Your task to perform on an android device: Go to display settings Image 0: 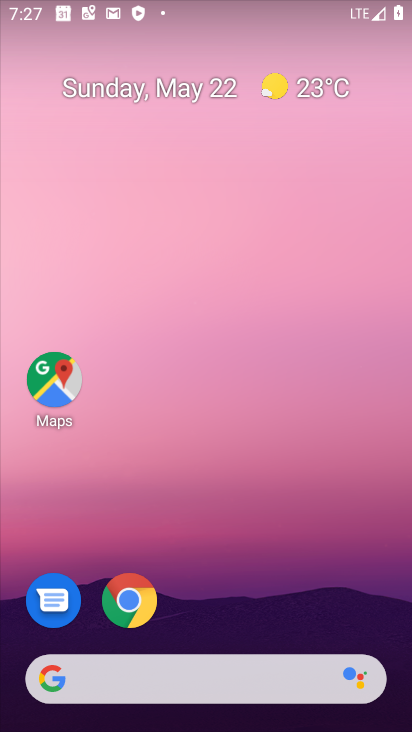
Step 0: drag from (397, 646) to (285, 143)
Your task to perform on an android device: Go to display settings Image 1: 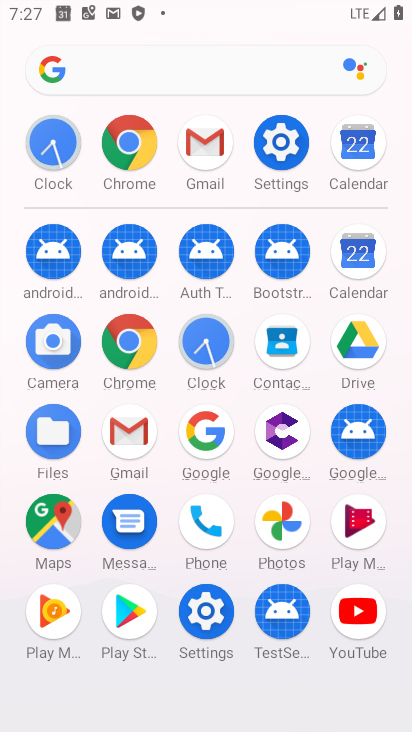
Step 1: click (262, 156)
Your task to perform on an android device: Go to display settings Image 2: 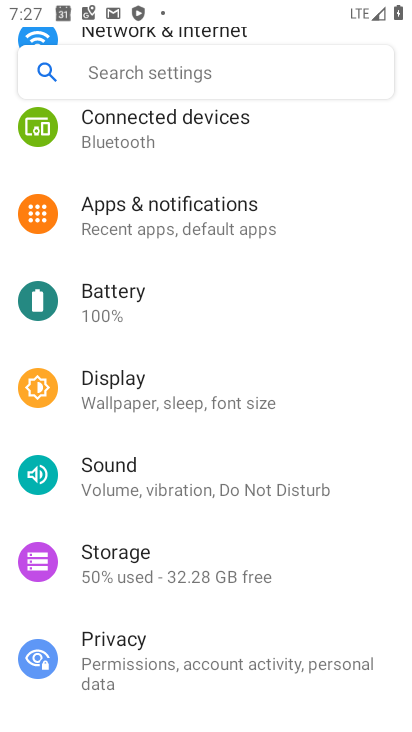
Step 2: click (204, 399)
Your task to perform on an android device: Go to display settings Image 3: 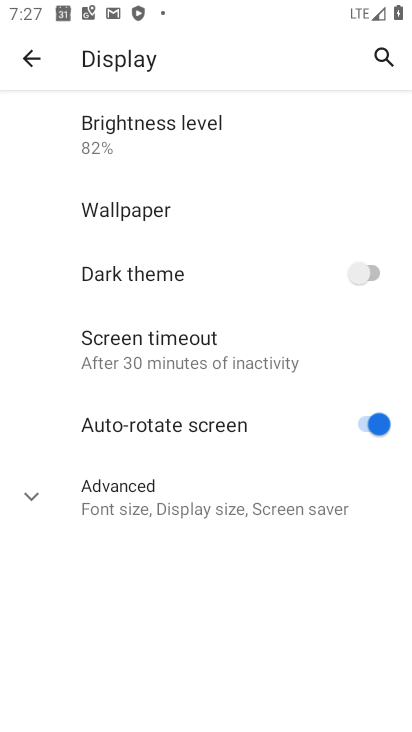
Step 3: task complete